Your task to perform on an android device: What's the weather today? Image 0: 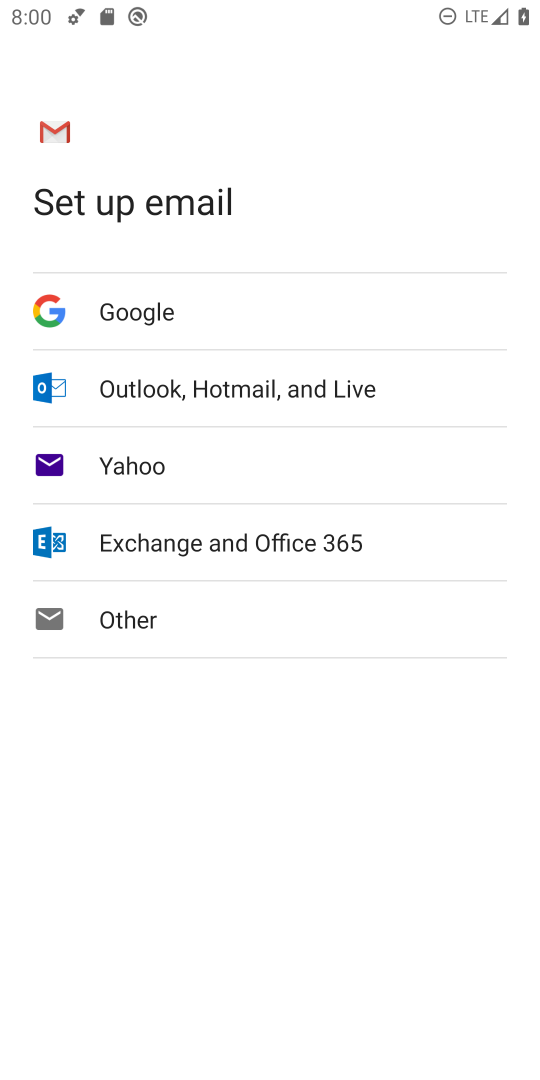
Step 0: drag from (276, 1002) to (338, 739)
Your task to perform on an android device: What's the weather today? Image 1: 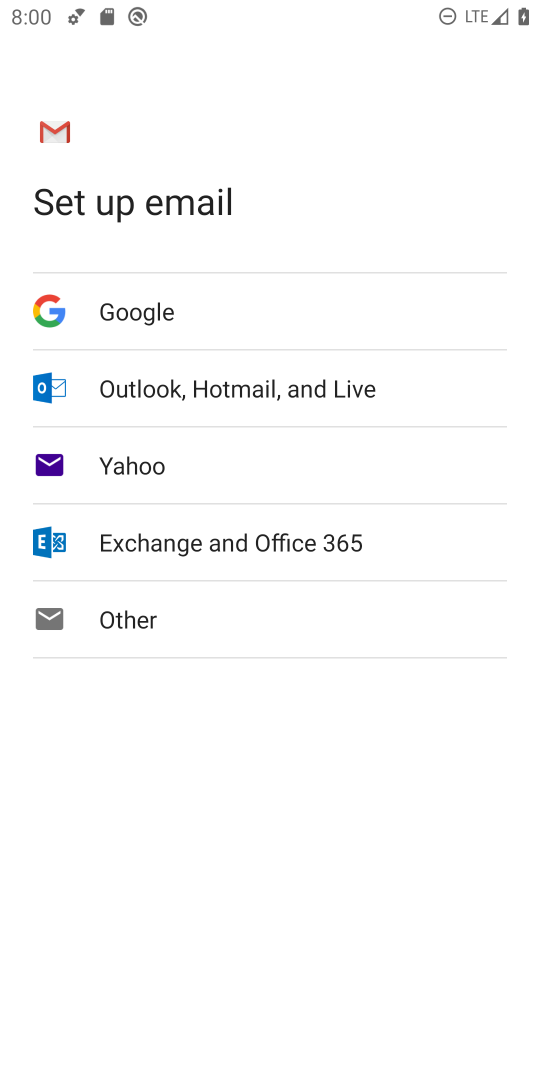
Step 1: press home button
Your task to perform on an android device: What's the weather today? Image 2: 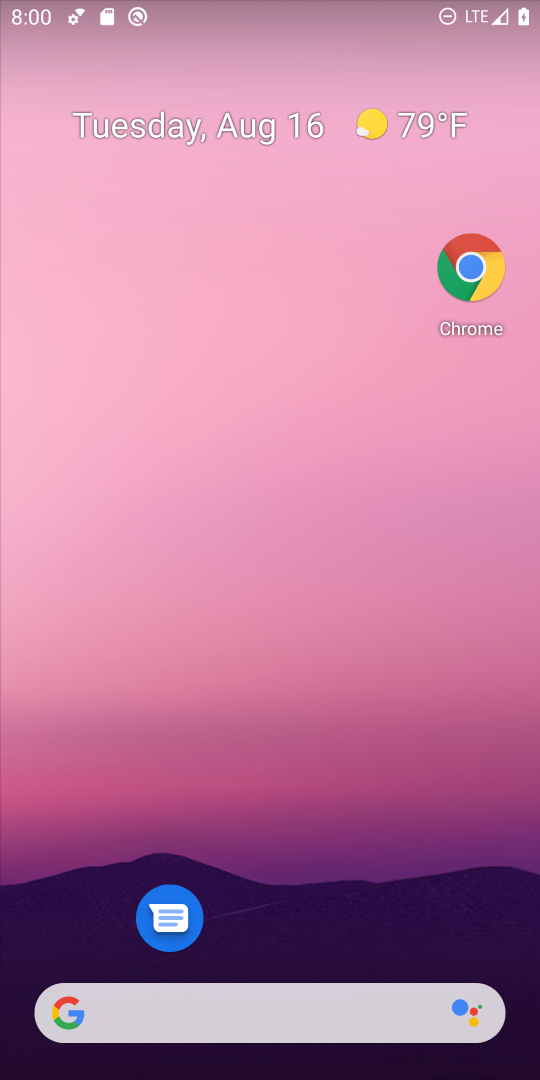
Step 2: drag from (348, 521) to (365, 236)
Your task to perform on an android device: What's the weather today? Image 3: 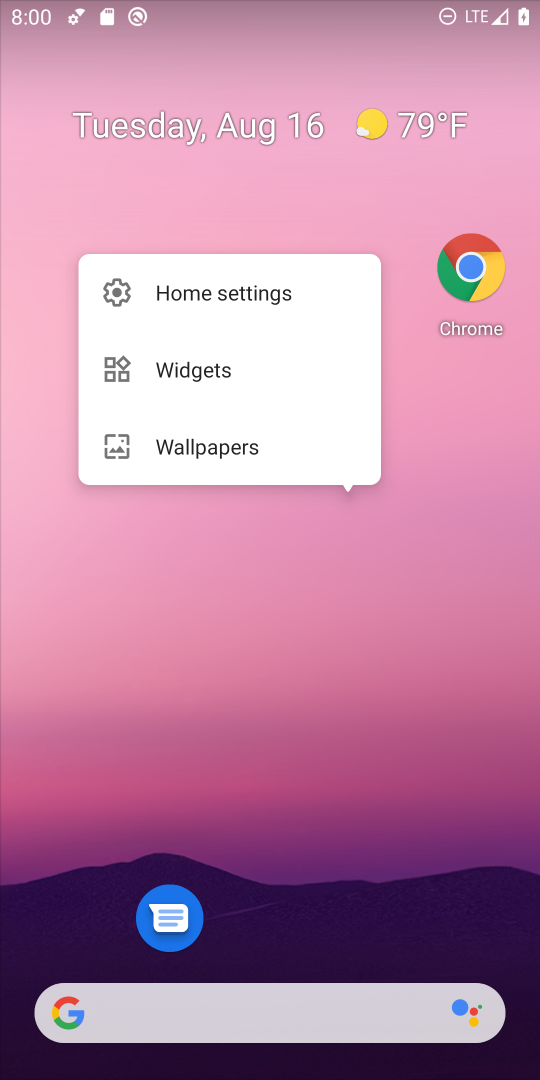
Step 3: drag from (273, 560) to (280, 85)
Your task to perform on an android device: What's the weather today? Image 4: 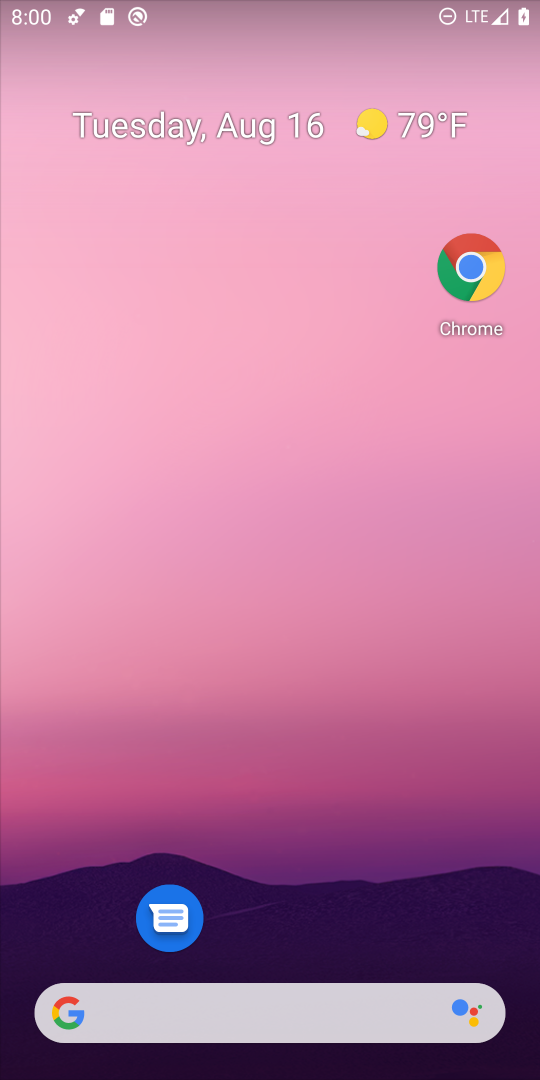
Step 4: click (359, 699)
Your task to perform on an android device: What's the weather today? Image 5: 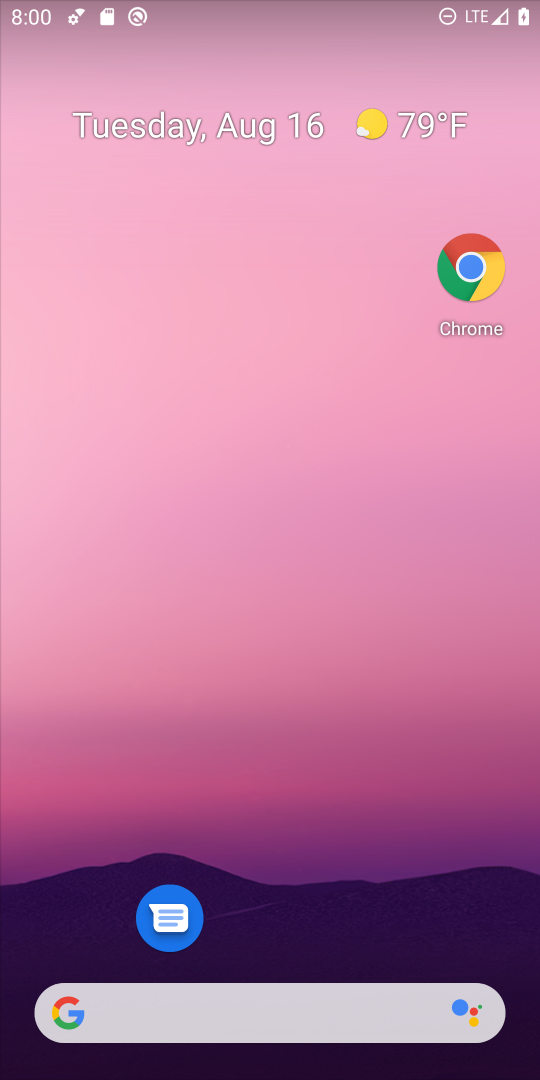
Step 5: drag from (257, 976) to (238, 124)
Your task to perform on an android device: What's the weather today? Image 6: 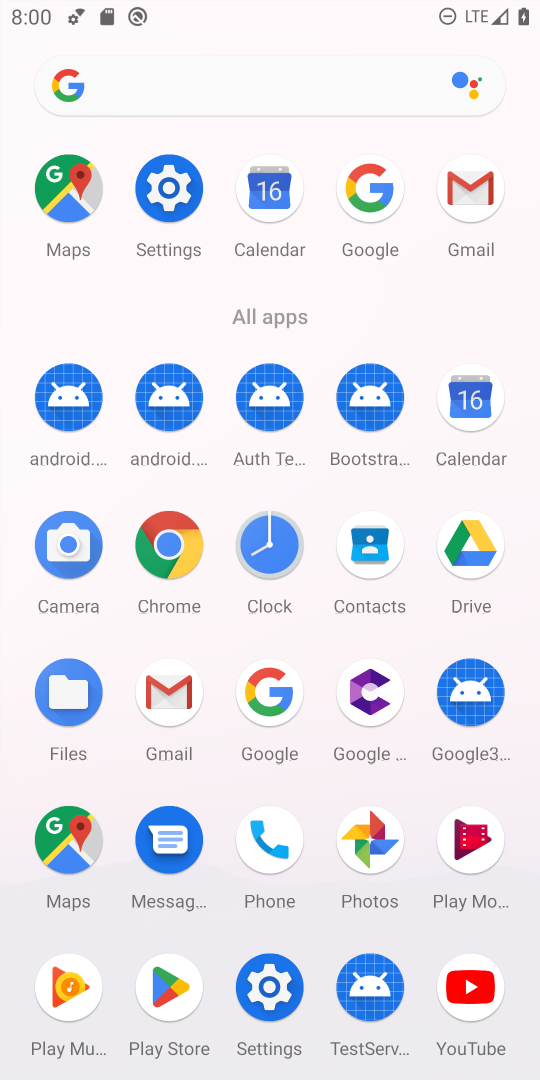
Step 6: click (270, 761)
Your task to perform on an android device: What's the weather today? Image 7: 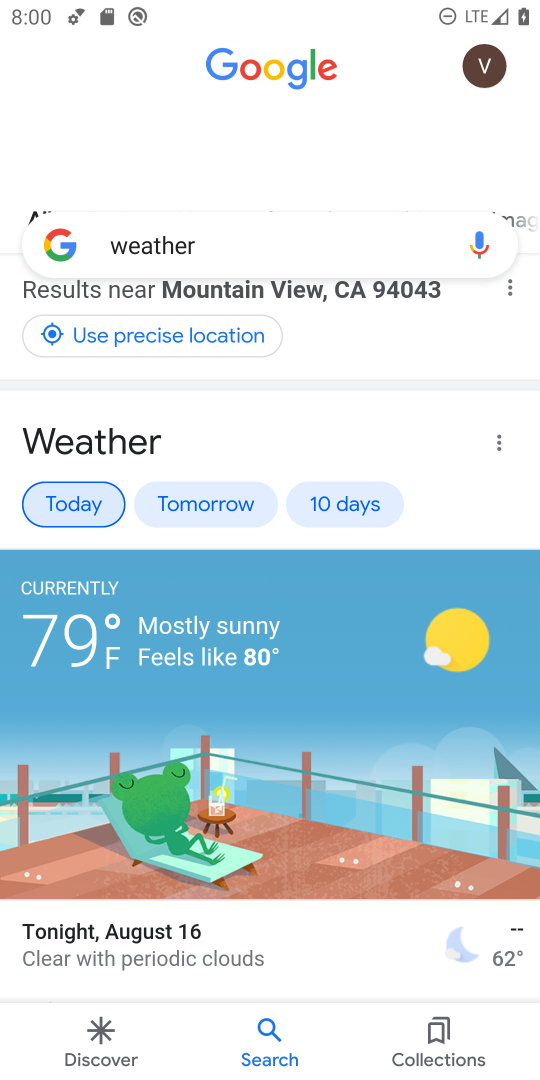
Step 7: task complete